Your task to perform on an android device: check data usage Image 0: 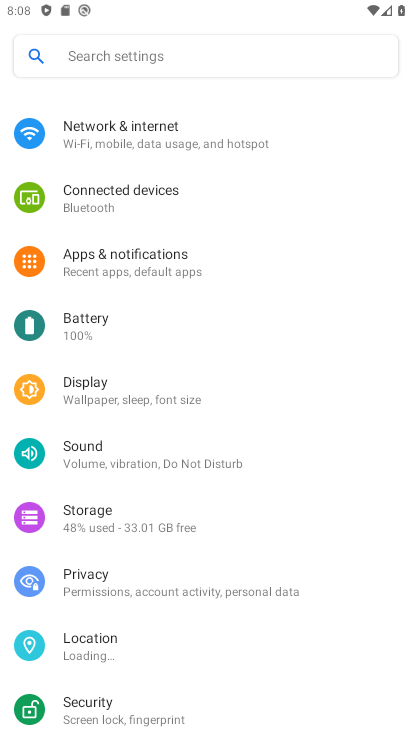
Step 0: press home button
Your task to perform on an android device: check data usage Image 1: 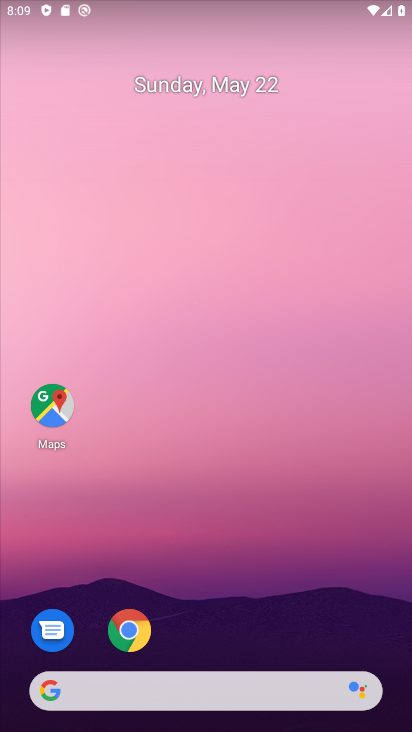
Step 1: drag from (133, 689) to (333, 165)
Your task to perform on an android device: check data usage Image 2: 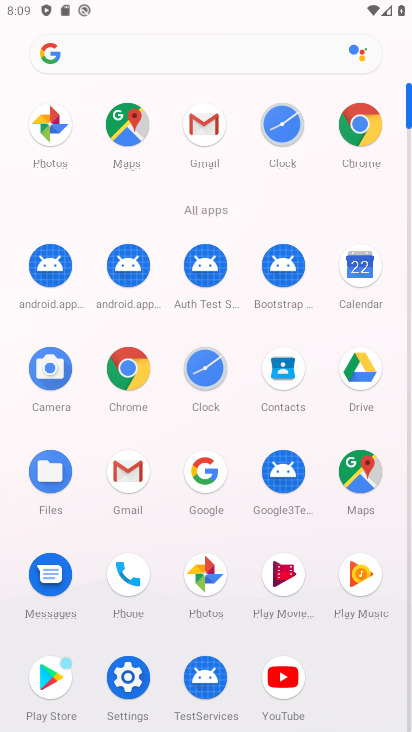
Step 2: click (129, 686)
Your task to perform on an android device: check data usage Image 3: 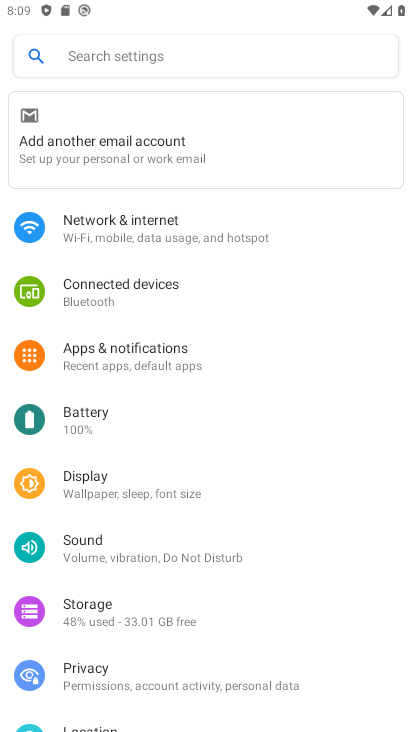
Step 3: click (169, 228)
Your task to perform on an android device: check data usage Image 4: 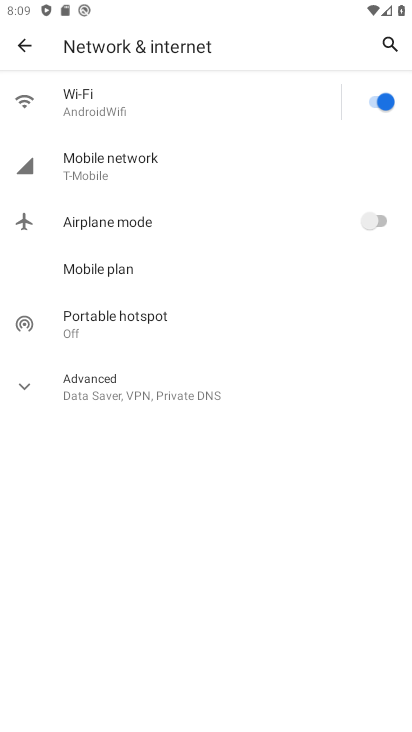
Step 4: click (115, 111)
Your task to perform on an android device: check data usage Image 5: 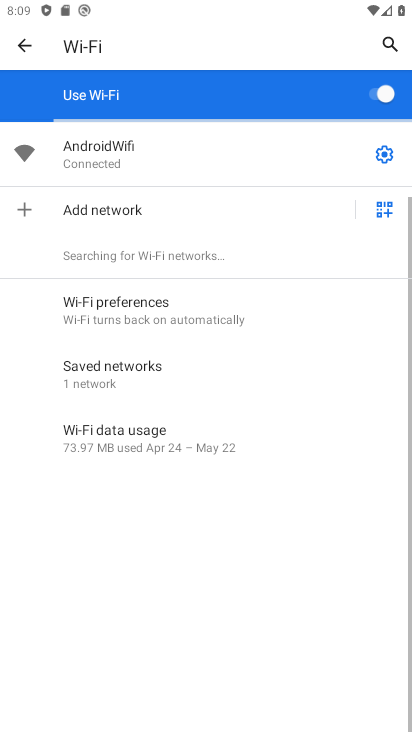
Step 5: click (134, 433)
Your task to perform on an android device: check data usage Image 6: 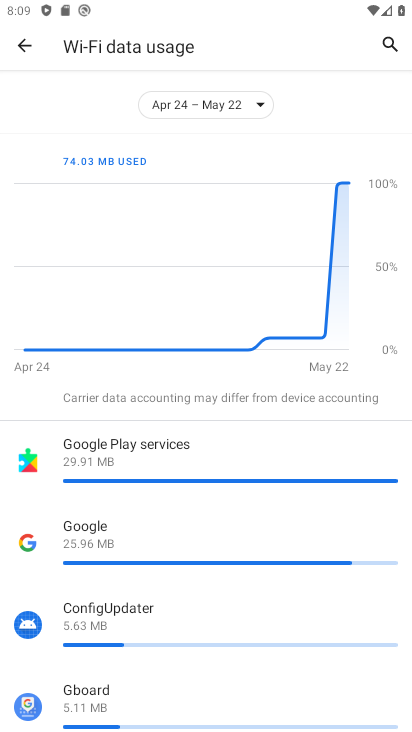
Step 6: task complete